Your task to perform on an android device: Open Google Chrome and open the bookmarks view Image 0: 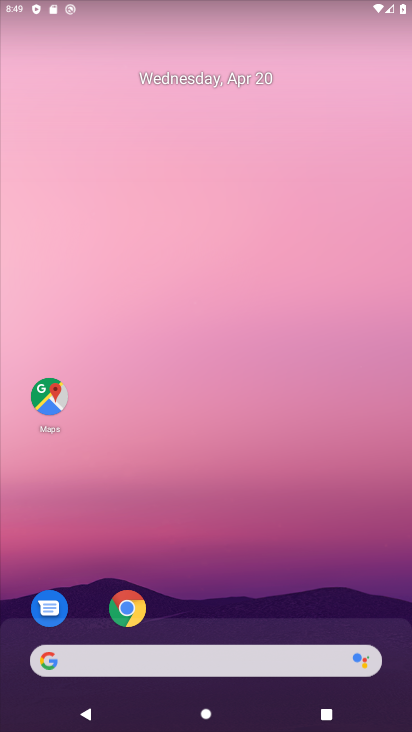
Step 0: click (135, 619)
Your task to perform on an android device: Open Google Chrome and open the bookmarks view Image 1: 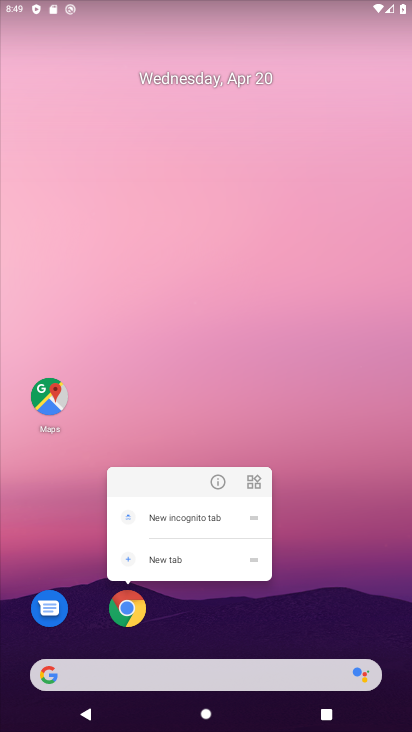
Step 1: click (132, 615)
Your task to perform on an android device: Open Google Chrome and open the bookmarks view Image 2: 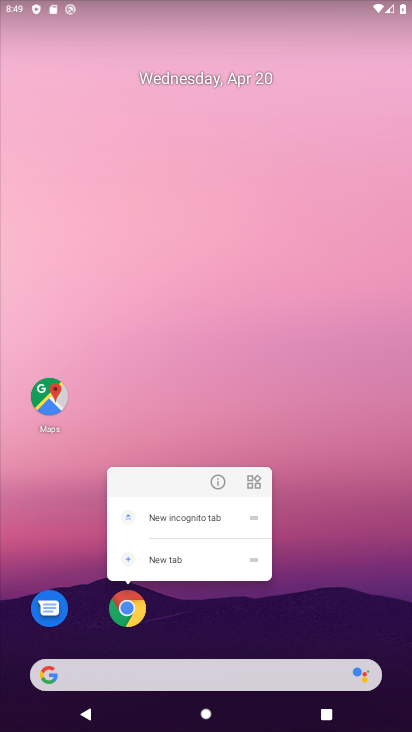
Step 2: click (131, 610)
Your task to perform on an android device: Open Google Chrome and open the bookmarks view Image 3: 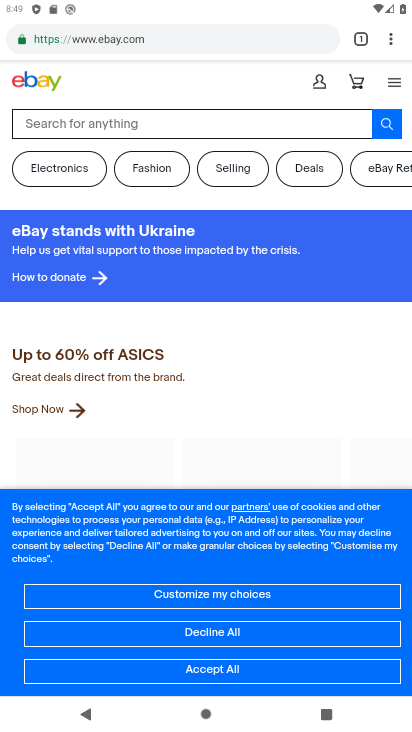
Step 3: task complete